Your task to perform on an android device: change alarm snooze length Image 0: 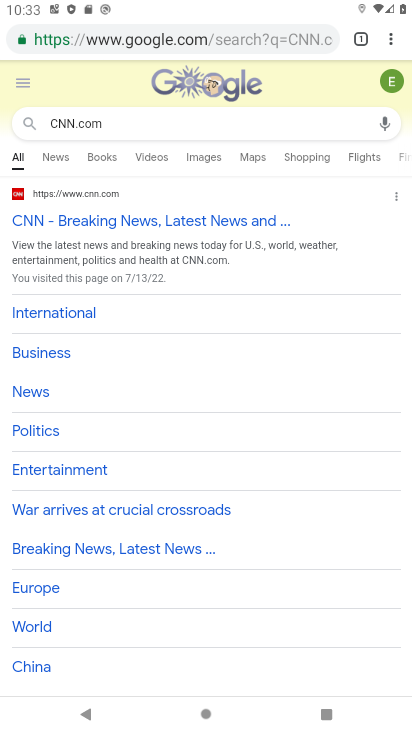
Step 0: press home button
Your task to perform on an android device: change alarm snooze length Image 1: 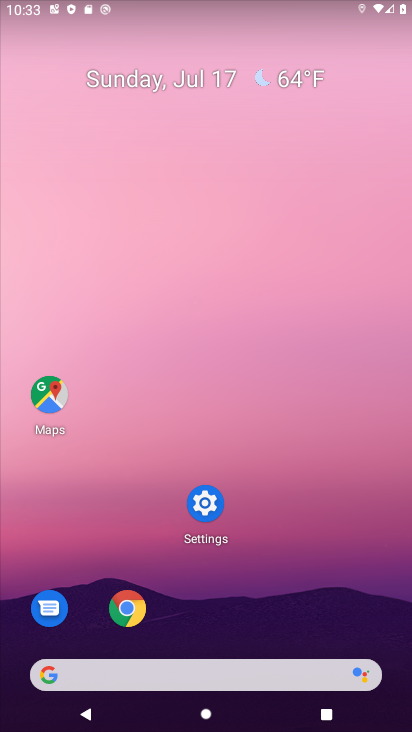
Step 1: drag from (395, 680) to (276, 34)
Your task to perform on an android device: change alarm snooze length Image 2: 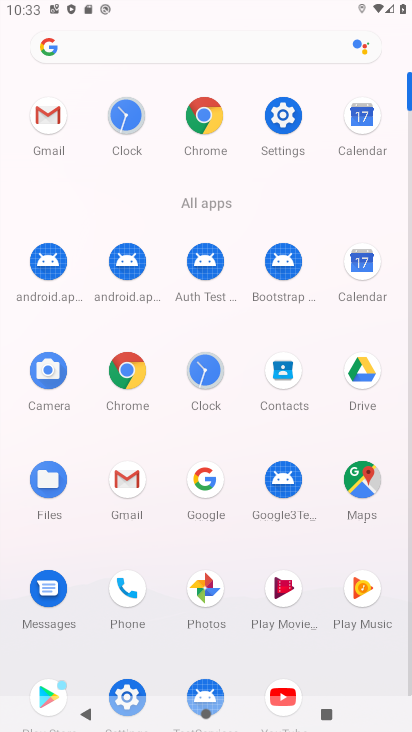
Step 2: click (199, 374)
Your task to perform on an android device: change alarm snooze length Image 3: 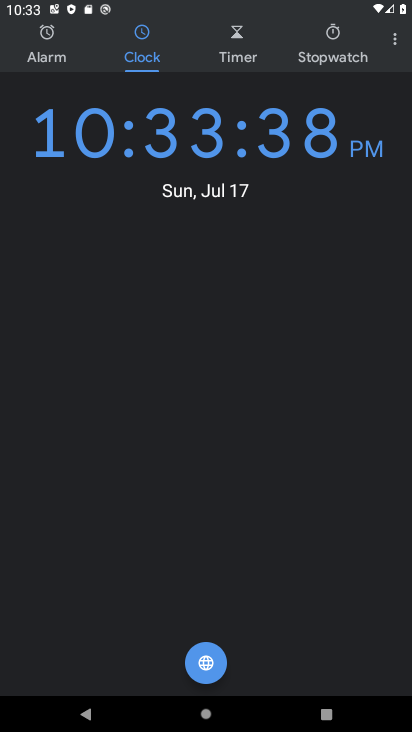
Step 3: click (393, 39)
Your task to perform on an android device: change alarm snooze length Image 4: 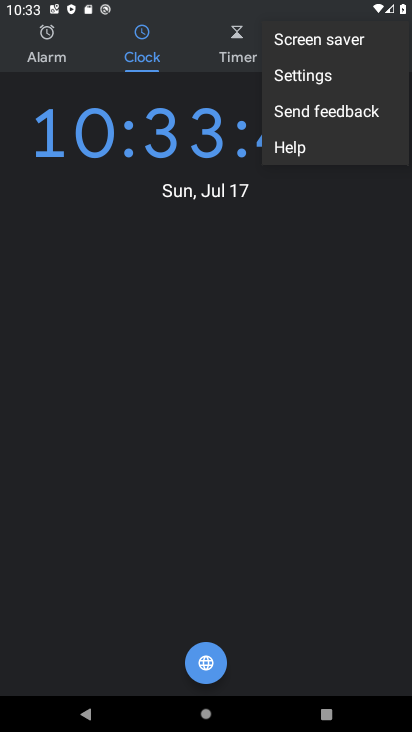
Step 4: click (290, 71)
Your task to perform on an android device: change alarm snooze length Image 5: 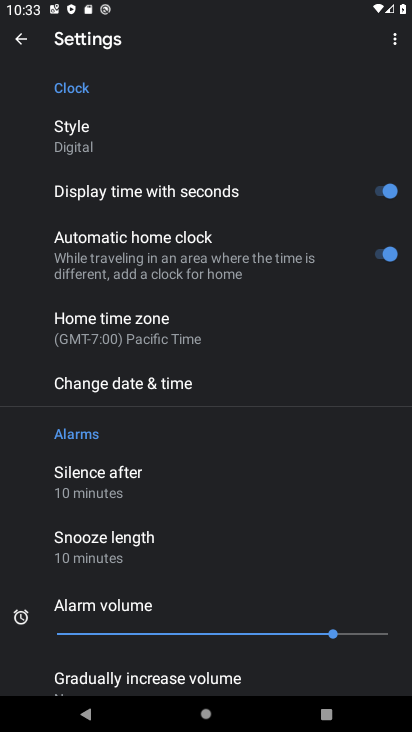
Step 5: click (140, 546)
Your task to perform on an android device: change alarm snooze length Image 6: 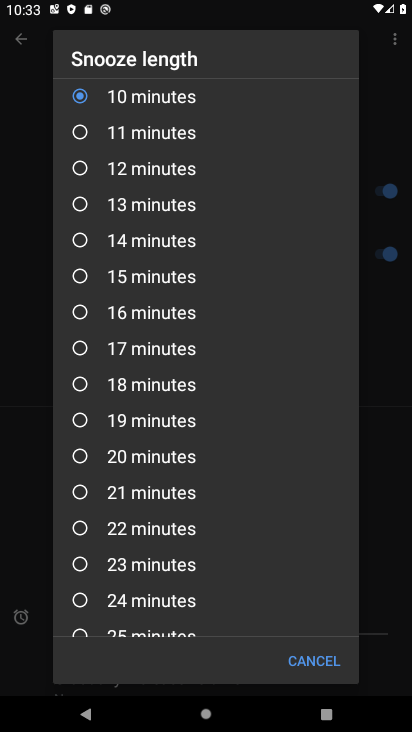
Step 6: click (77, 272)
Your task to perform on an android device: change alarm snooze length Image 7: 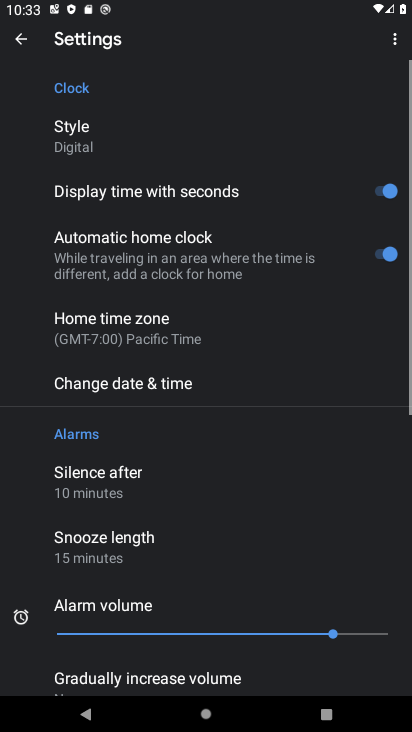
Step 7: task complete